Your task to perform on an android device: toggle notification dots Image 0: 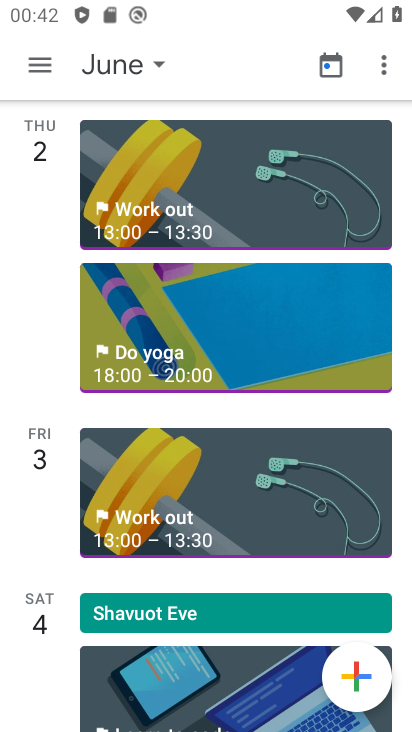
Step 0: press home button
Your task to perform on an android device: toggle notification dots Image 1: 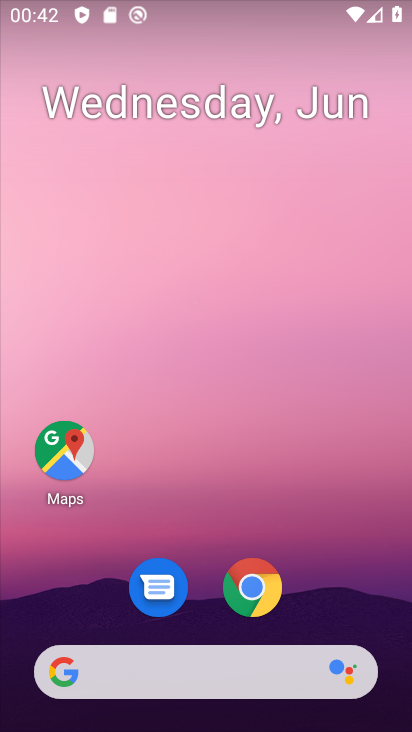
Step 1: drag from (338, 603) to (350, 194)
Your task to perform on an android device: toggle notification dots Image 2: 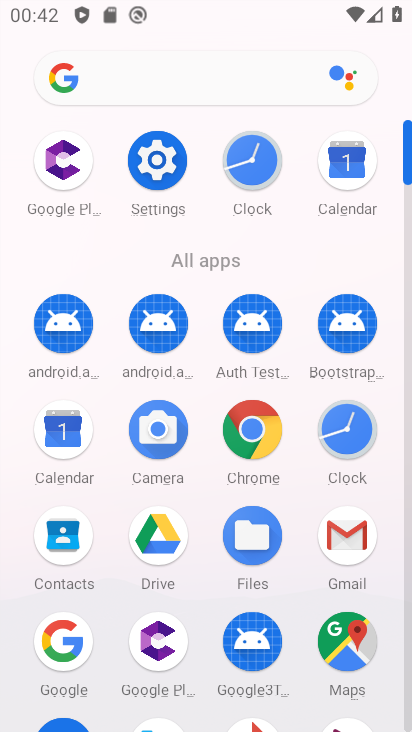
Step 2: click (168, 165)
Your task to perform on an android device: toggle notification dots Image 3: 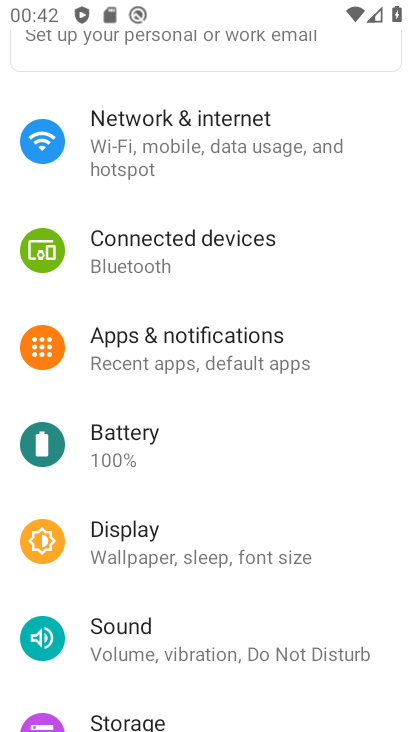
Step 3: click (155, 339)
Your task to perform on an android device: toggle notification dots Image 4: 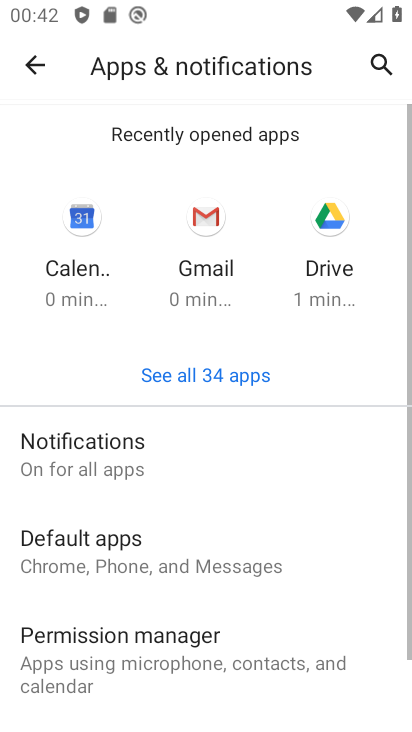
Step 4: click (130, 439)
Your task to perform on an android device: toggle notification dots Image 5: 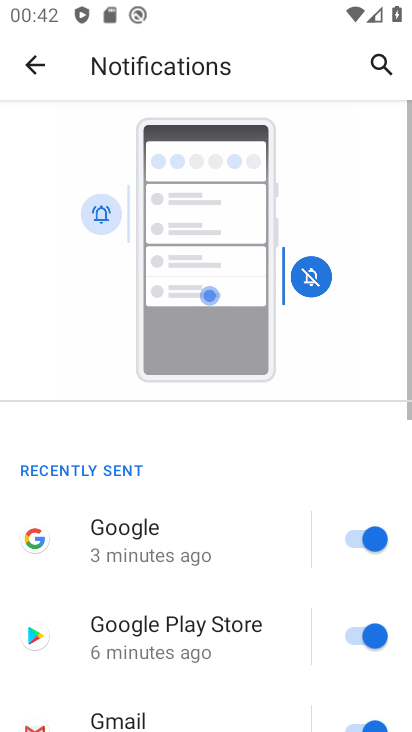
Step 5: drag from (220, 502) to (225, 7)
Your task to perform on an android device: toggle notification dots Image 6: 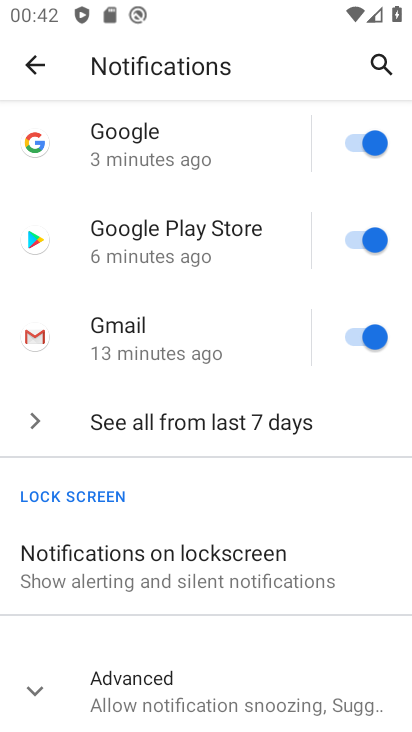
Step 6: click (264, 691)
Your task to perform on an android device: toggle notification dots Image 7: 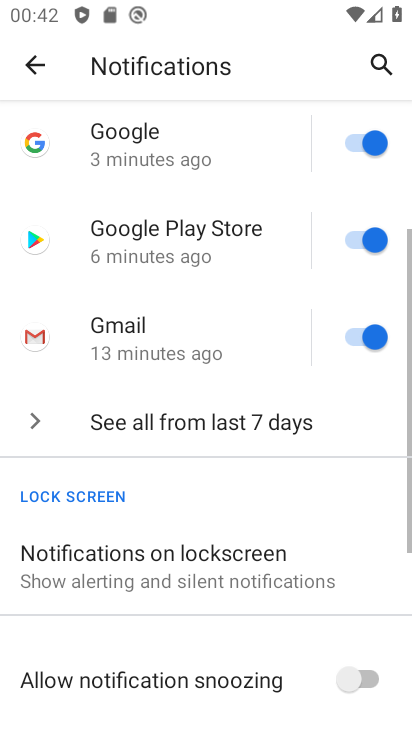
Step 7: drag from (274, 641) to (241, 225)
Your task to perform on an android device: toggle notification dots Image 8: 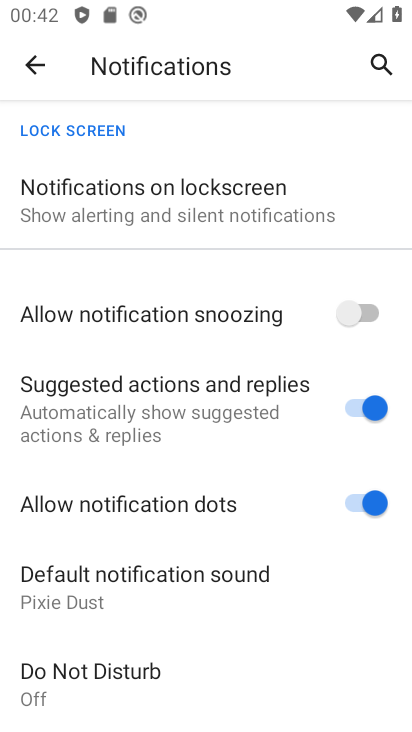
Step 8: click (367, 492)
Your task to perform on an android device: toggle notification dots Image 9: 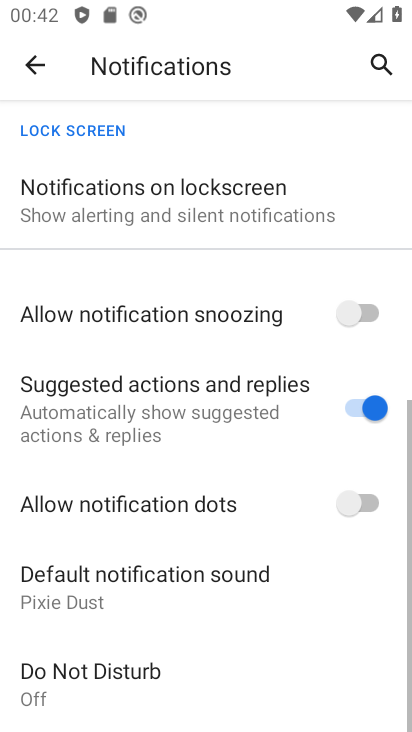
Step 9: task complete